Your task to perform on an android device: Open battery settings Image 0: 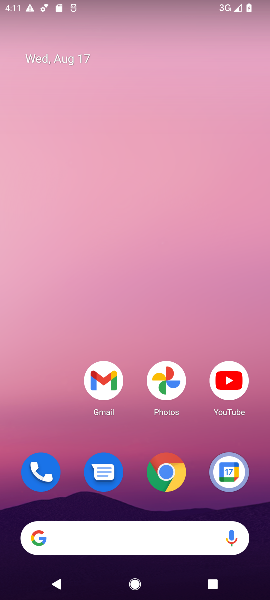
Step 0: drag from (125, 491) to (154, 148)
Your task to perform on an android device: Open battery settings Image 1: 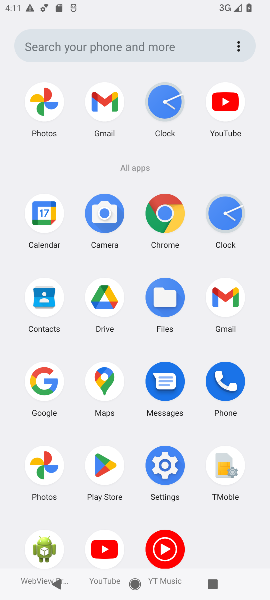
Step 1: click (160, 467)
Your task to perform on an android device: Open battery settings Image 2: 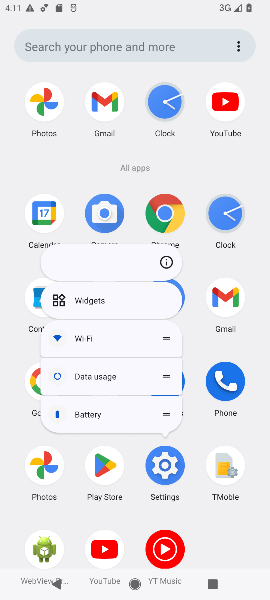
Step 2: click (160, 467)
Your task to perform on an android device: Open battery settings Image 3: 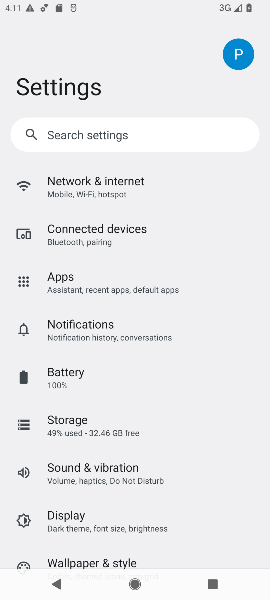
Step 3: click (83, 376)
Your task to perform on an android device: Open battery settings Image 4: 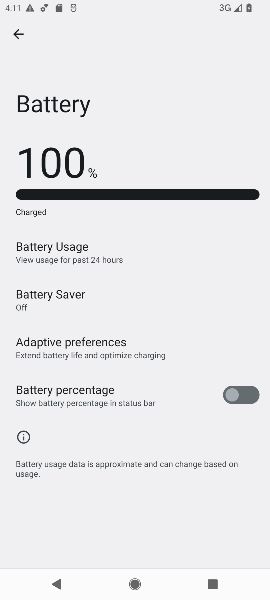
Step 4: task complete